Your task to perform on an android device: show emergency info Image 0: 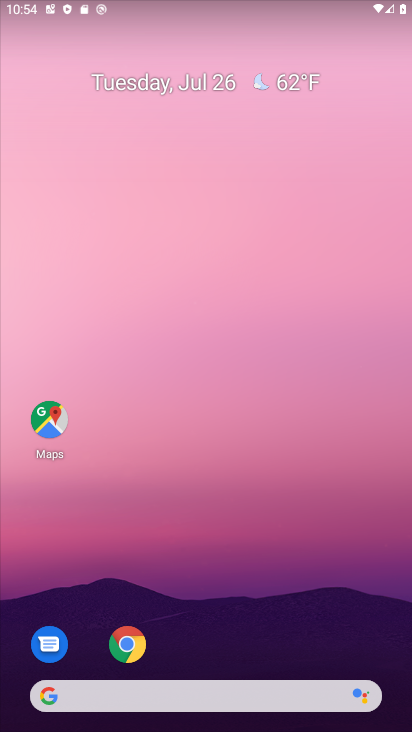
Step 0: drag from (280, 652) to (254, 76)
Your task to perform on an android device: show emergency info Image 1: 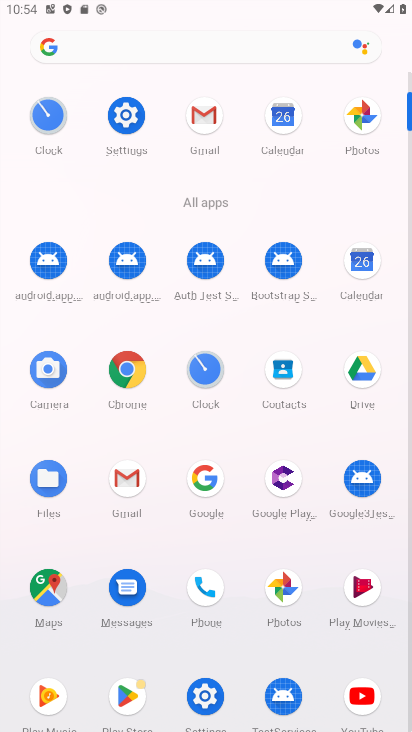
Step 1: click (194, 692)
Your task to perform on an android device: show emergency info Image 2: 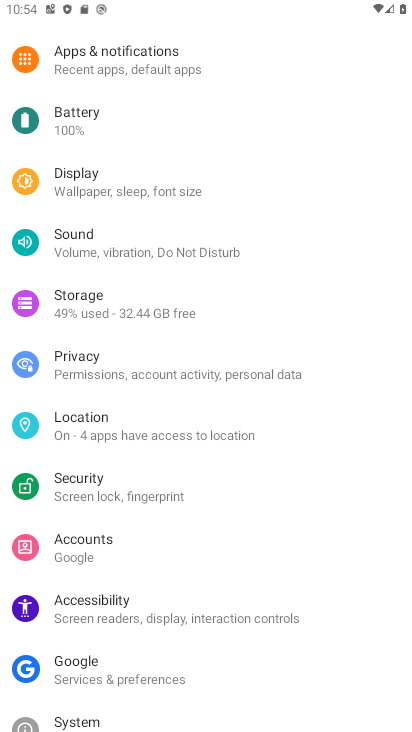
Step 2: drag from (200, 540) to (178, 184)
Your task to perform on an android device: show emergency info Image 3: 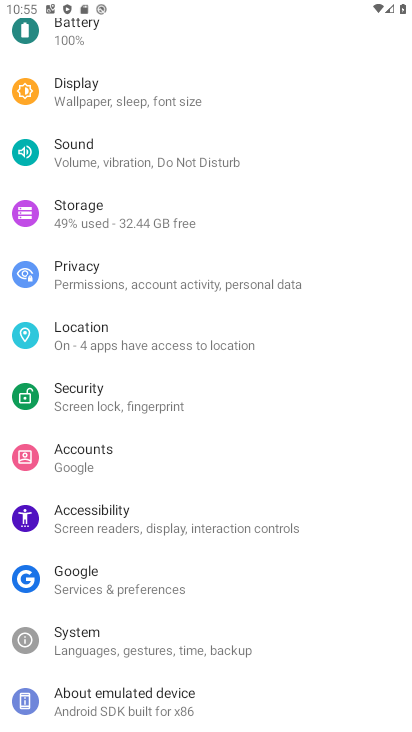
Step 3: click (176, 700)
Your task to perform on an android device: show emergency info Image 4: 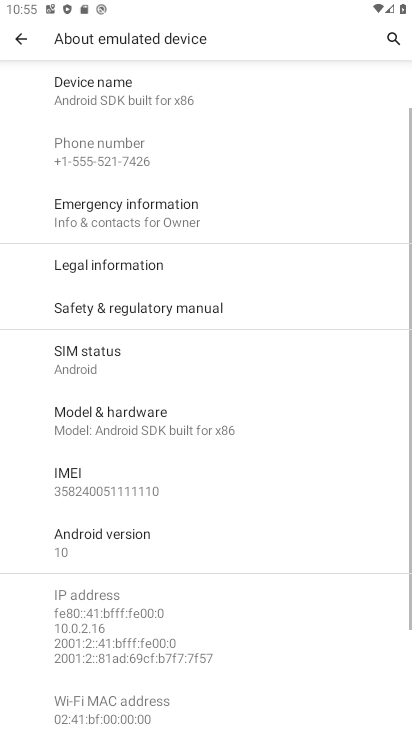
Step 4: click (201, 209)
Your task to perform on an android device: show emergency info Image 5: 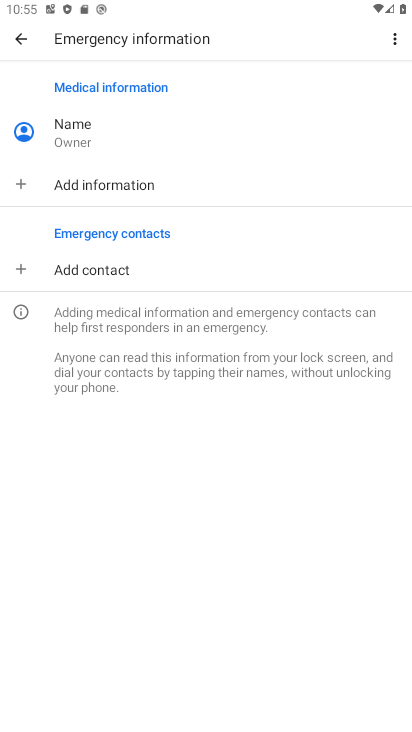
Step 5: task complete